Your task to perform on an android device: open chrome and create a bookmark for the current page Image 0: 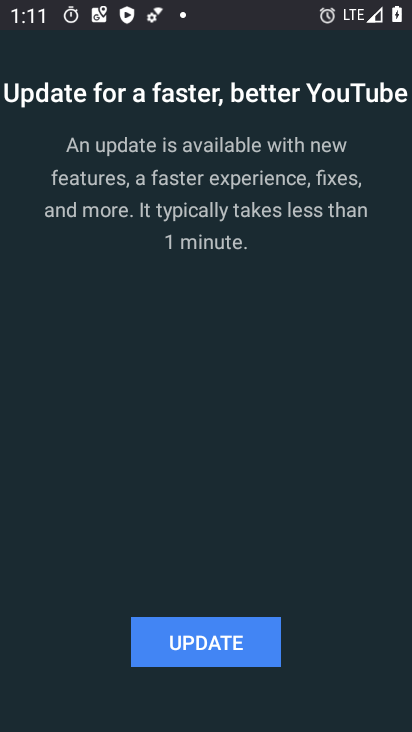
Step 0: press home button
Your task to perform on an android device: open chrome and create a bookmark for the current page Image 1: 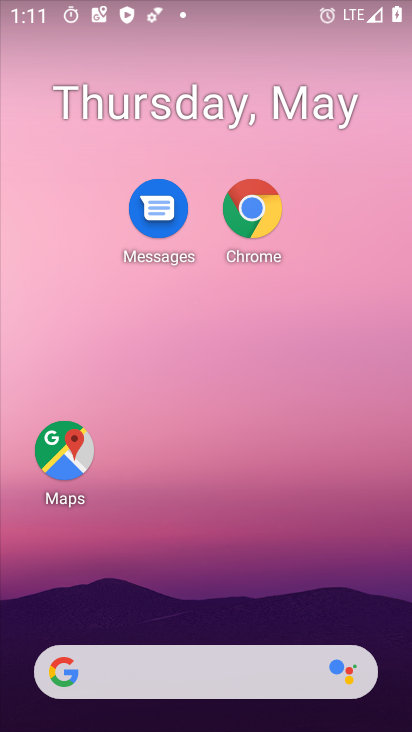
Step 1: click (62, 459)
Your task to perform on an android device: open chrome and create a bookmark for the current page Image 2: 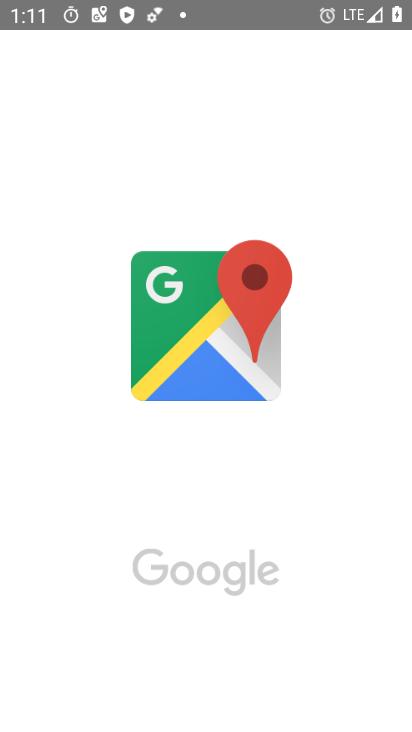
Step 2: press home button
Your task to perform on an android device: open chrome and create a bookmark for the current page Image 3: 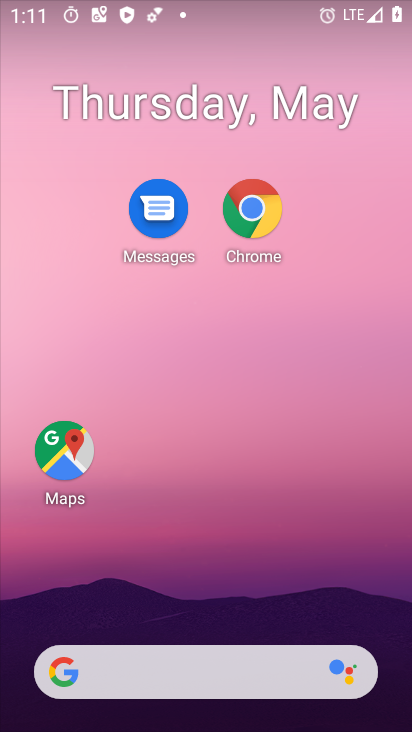
Step 3: click (243, 212)
Your task to perform on an android device: open chrome and create a bookmark for the current page Image 4: 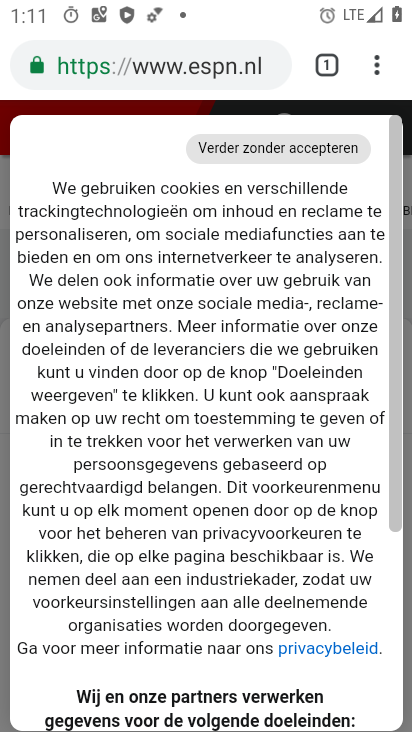
Step 4: click (375, 68)
Your task to perform on an android device: open chrome and create a bookmark for the current page Image 5: 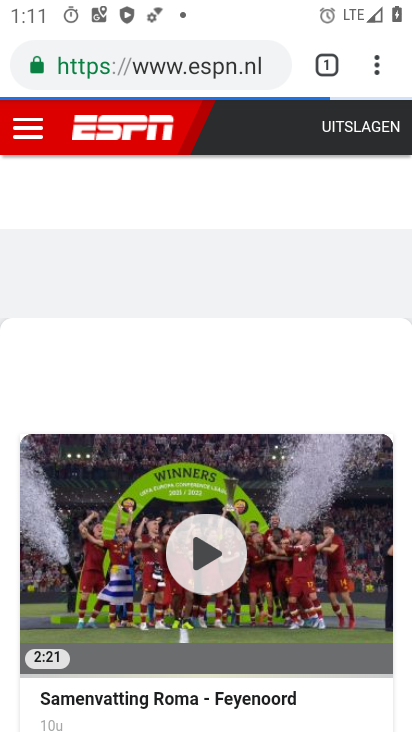
Step 5: click (374, 67)
Your task to perform on an android device: open chrome and create a bookmark for the current page Image 6: 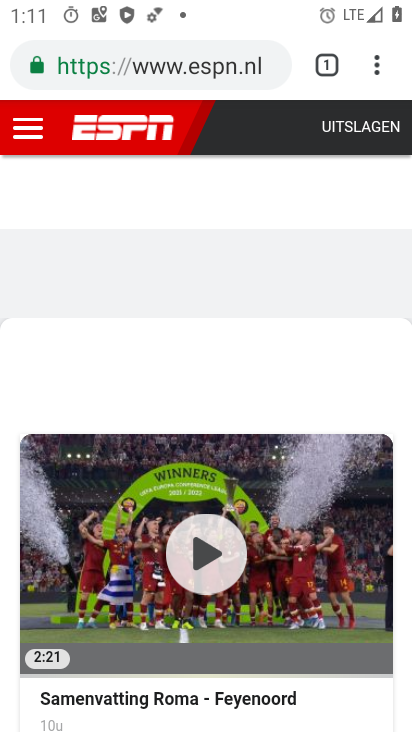
Step 6: click (372, 63)
Your task to perform on an android device: open chrome and create a bookmark for the current page Image 7: 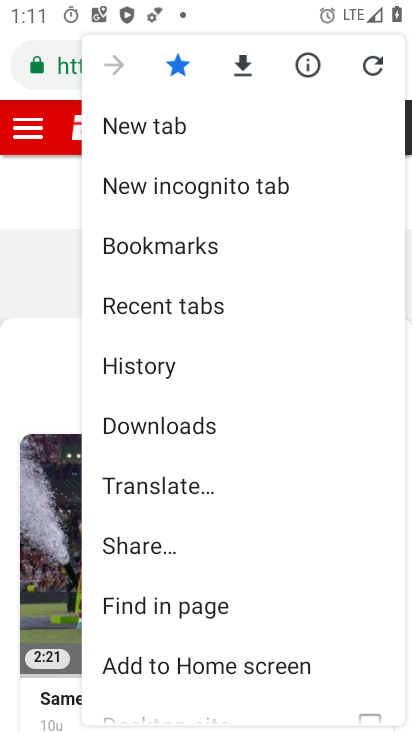
Step 7: task complete